Your task to perform on an android device: Is it going to rain today? Image 0: 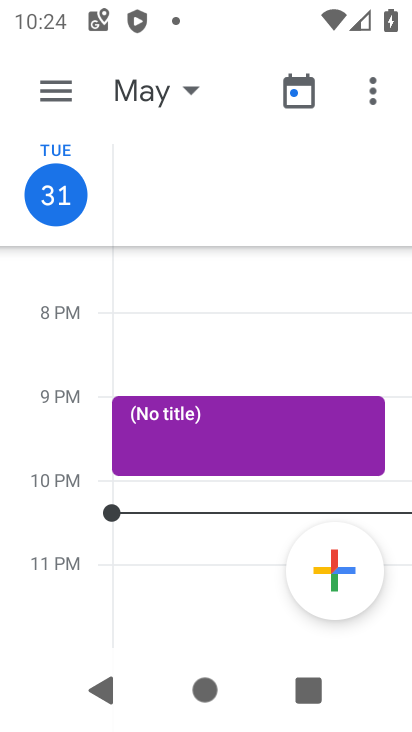
Step 0: press home button
Your task to perform on an android device: Is it going to rain today? Image 1: 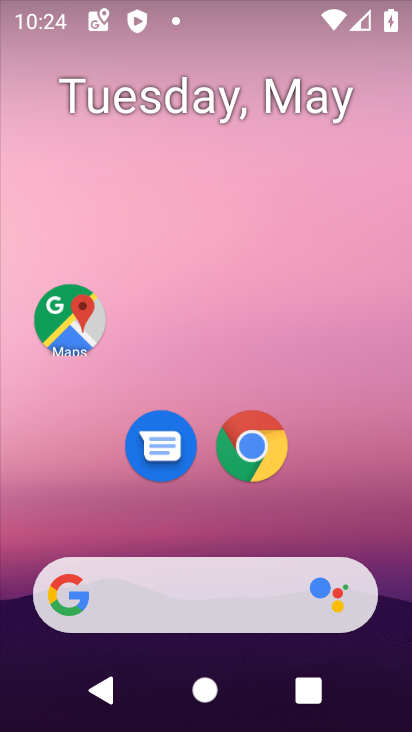
Step 1: click (205, 615)
Your task to perform on an android device: Is it going to rain today? Image 2: 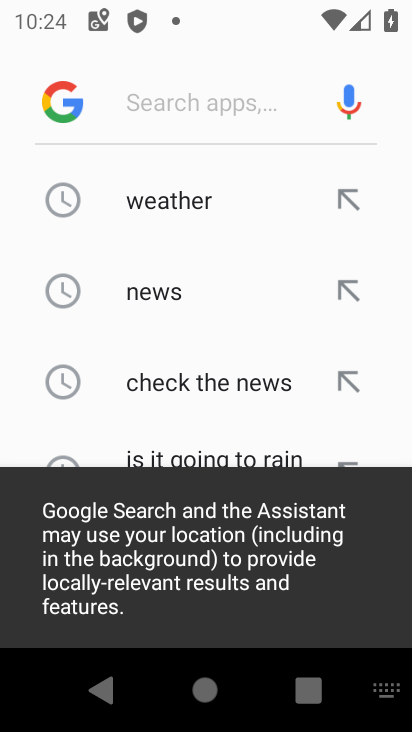
Step 2: click (182, 207)
Your task to perform on an android device: Is it going to rain today? Image 3: 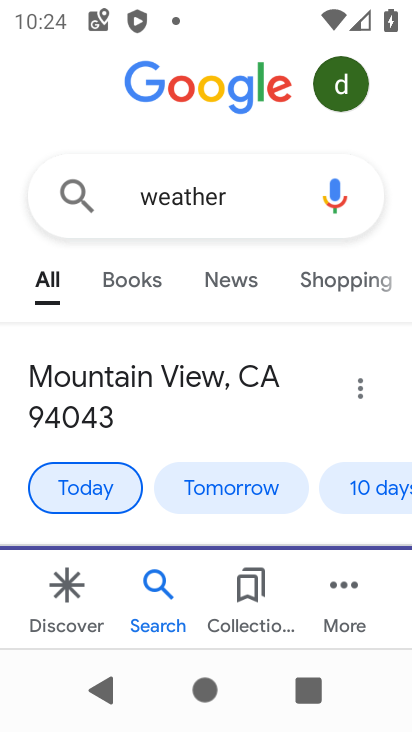
Step 3: task complete